Your task to perform on an android device: check the backup settings in the google photos Image 0: 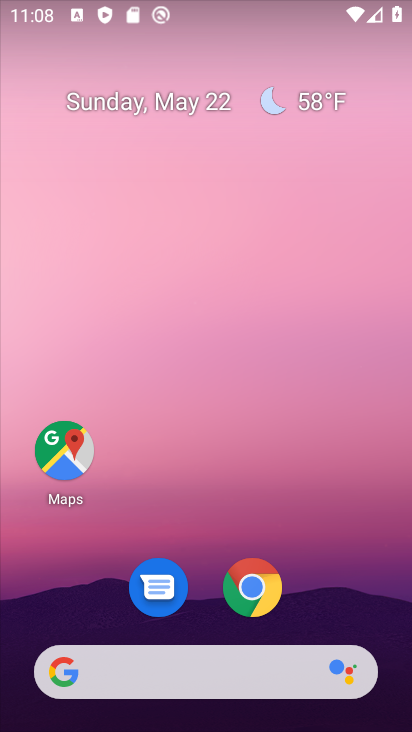
Step 0: drag from (237, 502) to (206, 10)
Your task to perform on an android device: check the backup settings in the google photos Image 1: 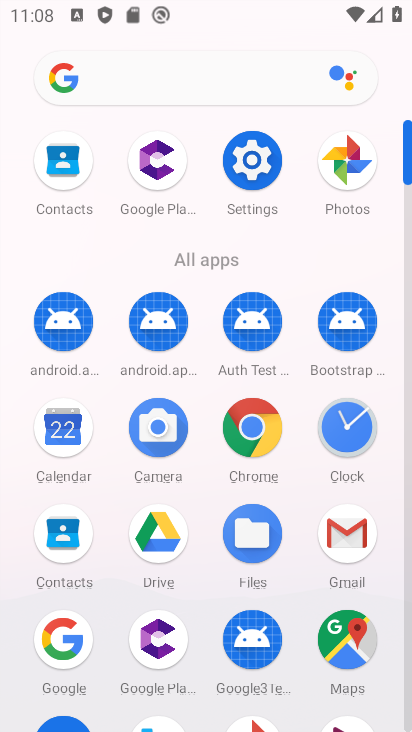
Step 1: click (344, 158)
Your task to perform on an android device: check the backup settings in the google photos Image 2: 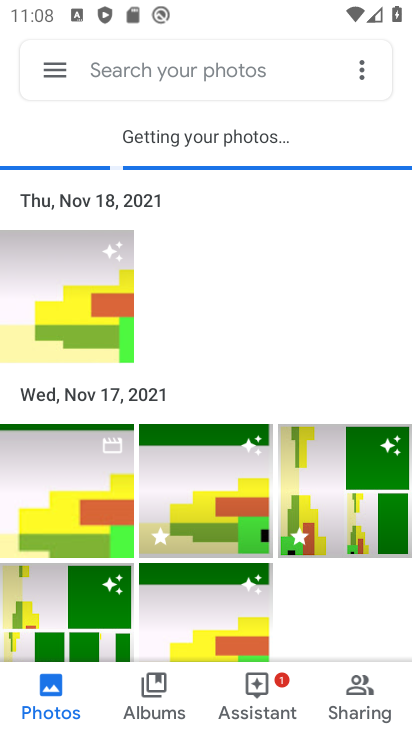
Step 2: click (71, 76)
Your task to perform on an android device: check the backup settings in the google photos Image 3: 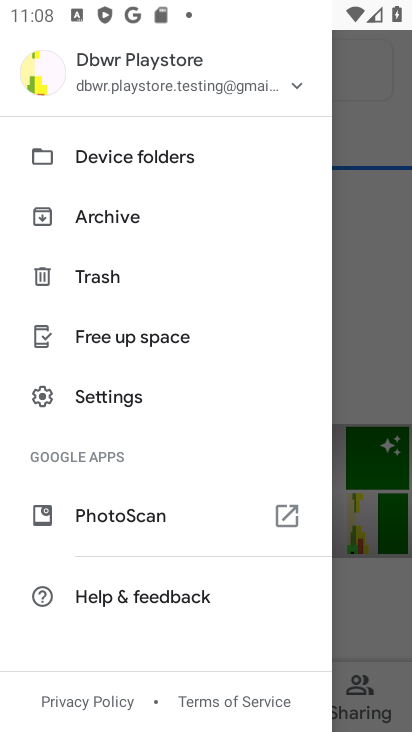
Step 3: click (117, 385)
Your task to perform on an android device: check the backup settings in the google photos Image 4: 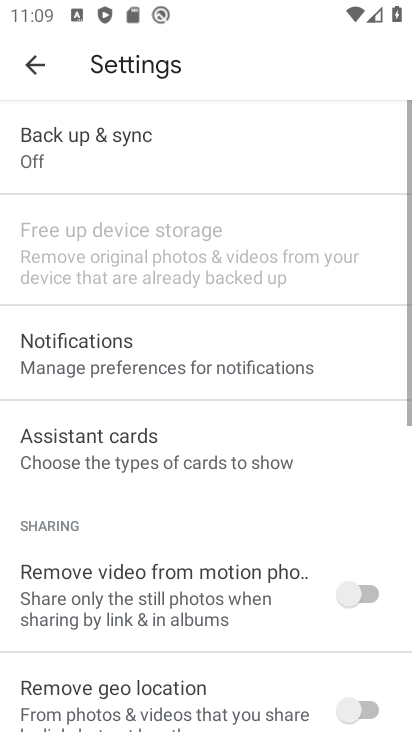
Step 4: click (128, 127)
Your task to perform on an android device: check the backup settings in the google photos Image 5: 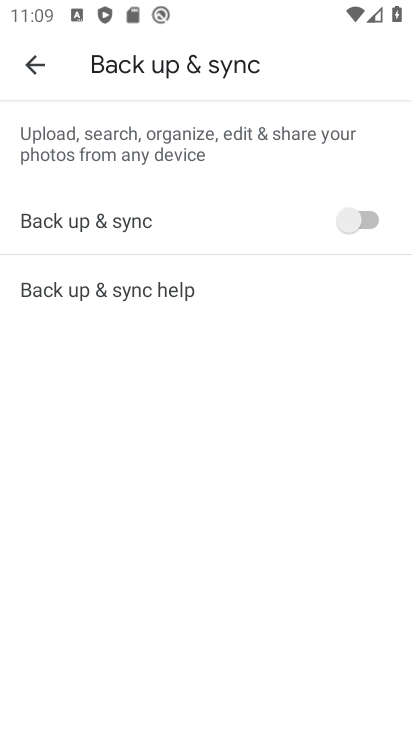
Step 5: click (361, 214)
Your task to perform on an android device: check the backup settings in the google photos Image 6: 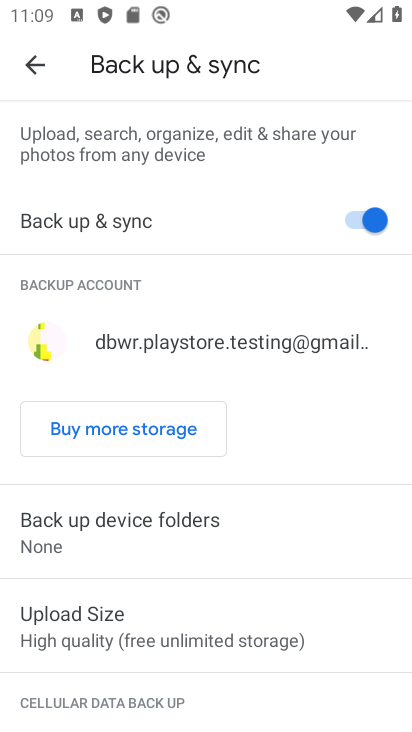
Step 6: task complete